Your task to perform on an android device: turn vacation reply on in the gmail app Image 0: 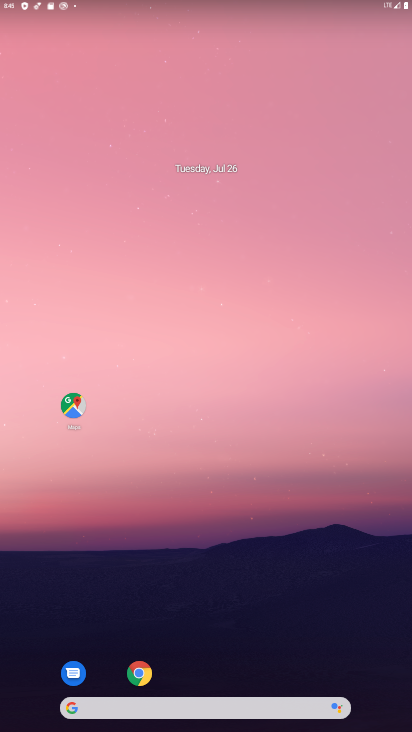
Step 0: drag from (248, 692) to (261, 121)
Your task to perform on an android device: turn vacation reply on in the gmail app Image 1: 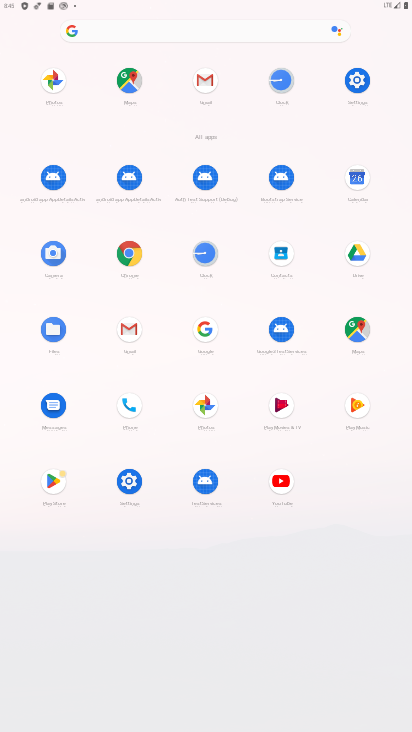
Step 1: click (138, 330)
Your task to perform on an android device: turn vacation reply on in the gmail app Image 2: 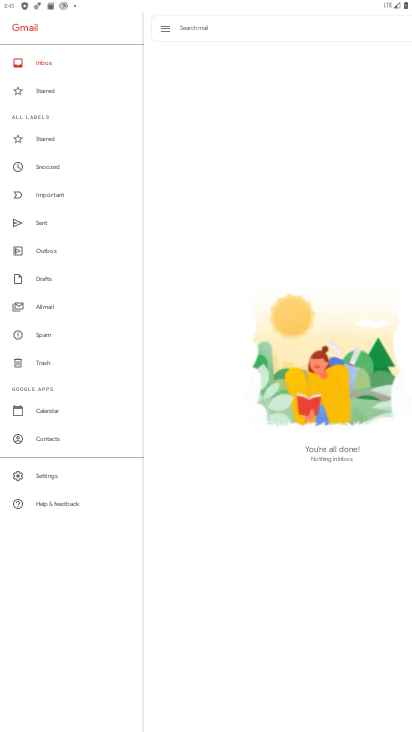
Step 2: click (70, 475)
Your task to perform on an android device: turn vacation reply on in the gmail app Image 3: 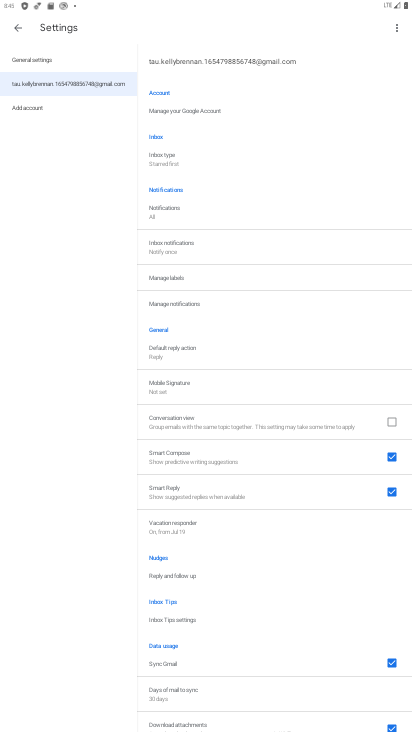
Step 3: click (187, 527)
Your task to perform on an android device: turn vacation reply on in the gmail app Image 4: 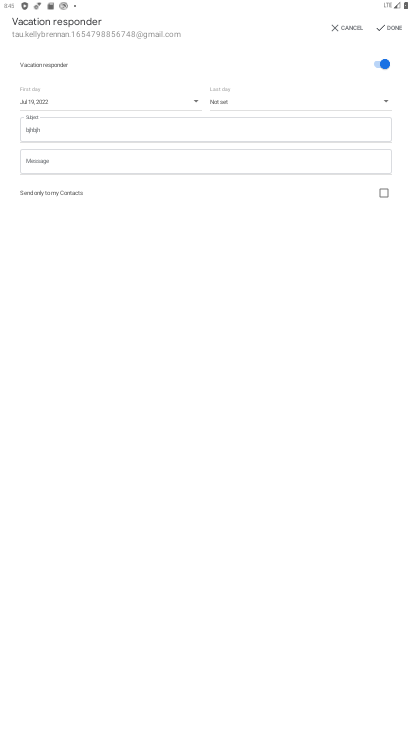
Step 4: task complete